Your task to perform on an android device: Play the last video I watched on Youtube Image 0: 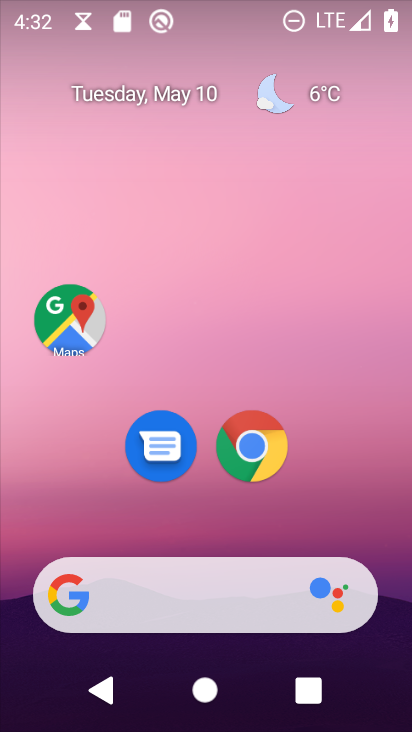
Step 0: drag from (248, 233) to (205, 97)
Your task to perform on an android device: Play the last video I watched on Youtube Image 1: 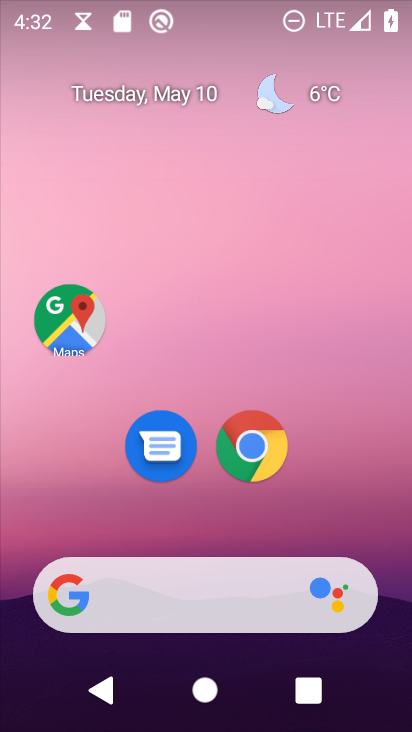
Step 1: drag from (312, 510) to (256, 89)
Your task to perform on an android device: Play the last video I watched on Youtube Image 2: 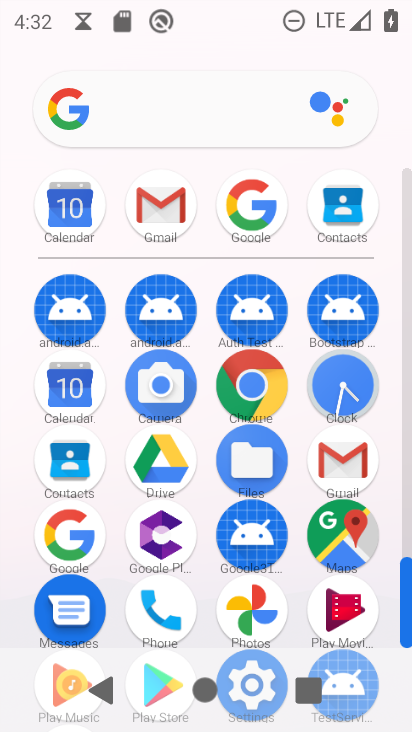
Step 2: drag from (204, 641) to (212, 233)
Your task to perform on an android device: Play the last video I watched on Youtube Image 3: 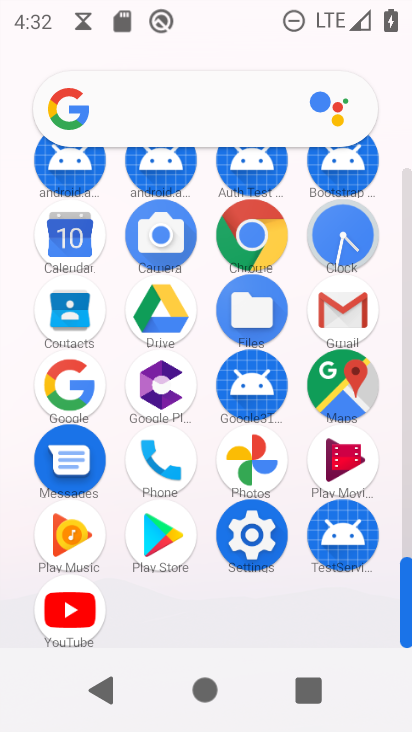
Step 3: click (77, 609)
Your task to perform on an android device: Play the last video I watched on Youtube Image 4: 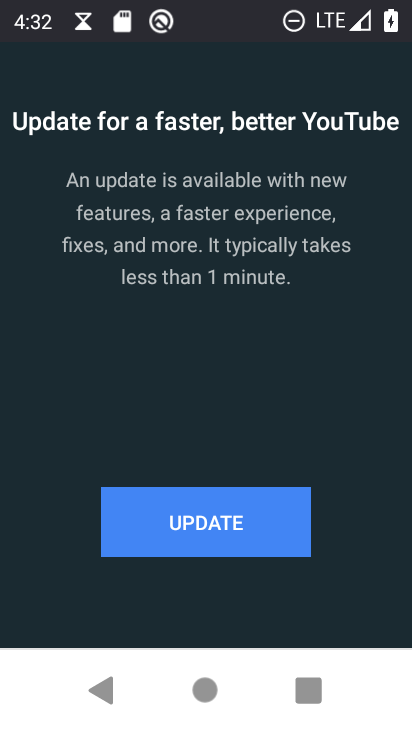
Step 4: click (257, 533)
Your task to perform on an android device: Play the last video I watched on Youtube Image 5: 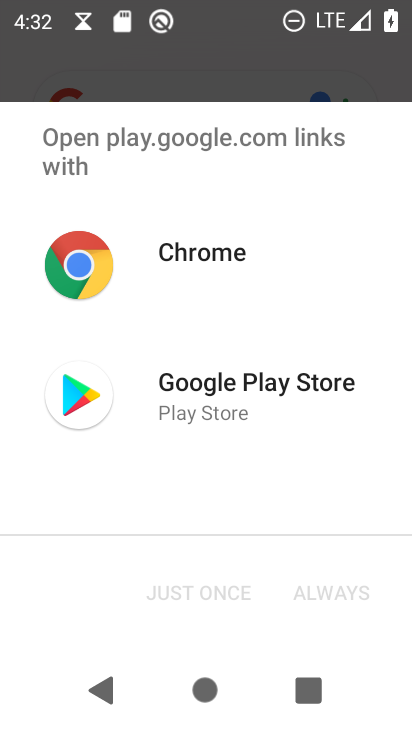
Step 5: click (189, 378)
Your task to perform on an android device: Play the last video I watched on Youtube Image 6: 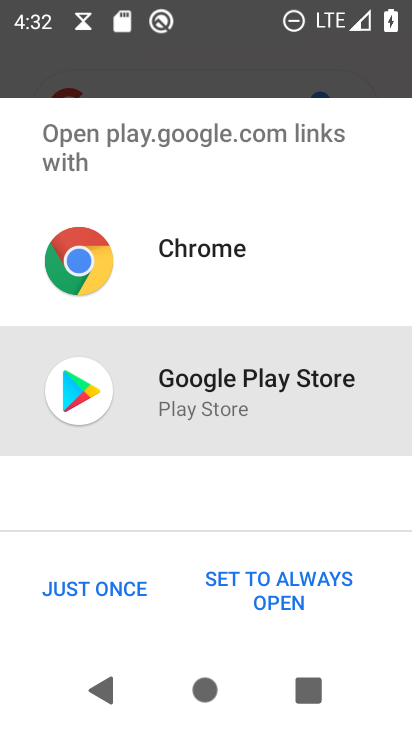
Step 6: click (108, 589)
Your task to perform on an android device: Play the last video I watched on Youtube Image 7: 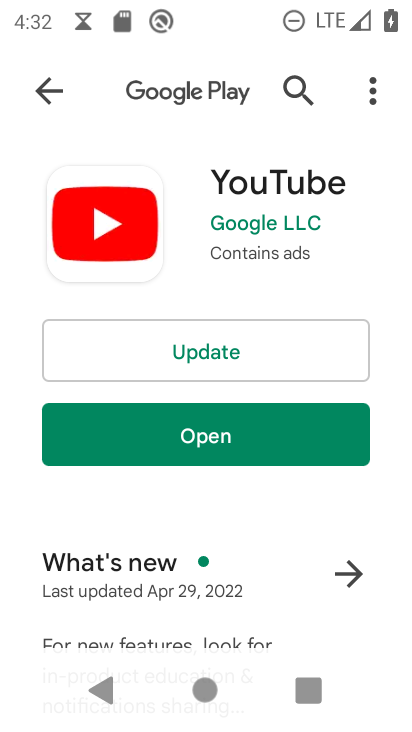
Step 7: click (247, 338)
Your task to perform on an android device: Play the last video I watched on Youtube Image 8: 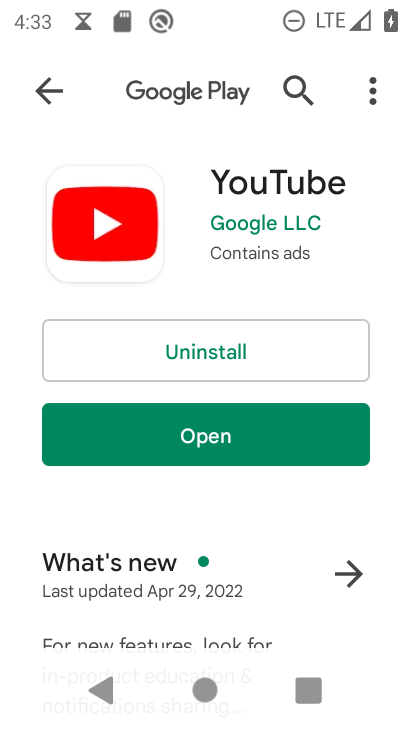
Step 8: click (250, 435)
Your task to perform on an android device: Play the last video I watched on Youtube Image 9: 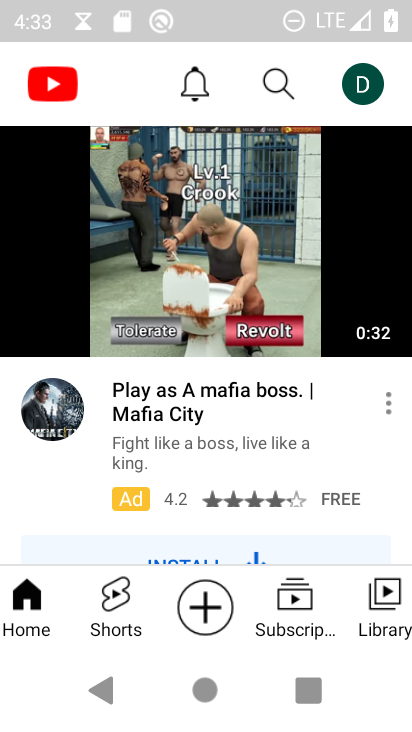
Step 9: click (383, 600)
Your task to perform on an android device: Play the last video I watched on Youtube Image 10: 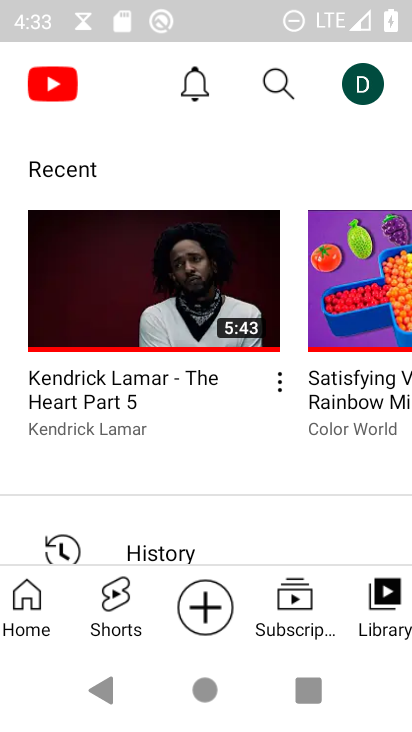
Step 10: click (164, 299)
Your task to perform on an android device: Play the last video I watched on Youtube Image 11: 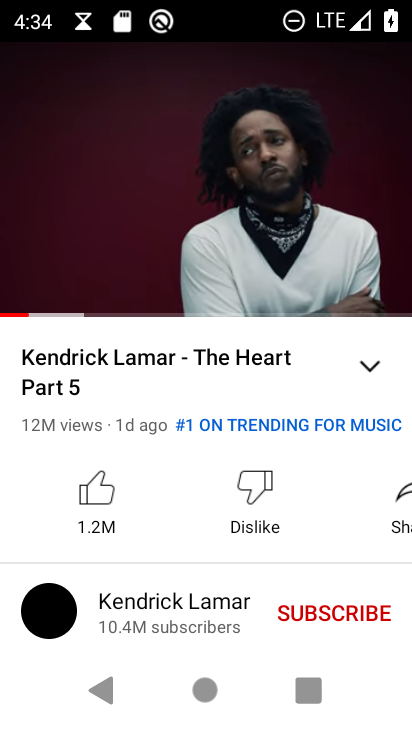
Step 11: task complete